Your task to perform on an android device: Open Wikipedia Image 0: 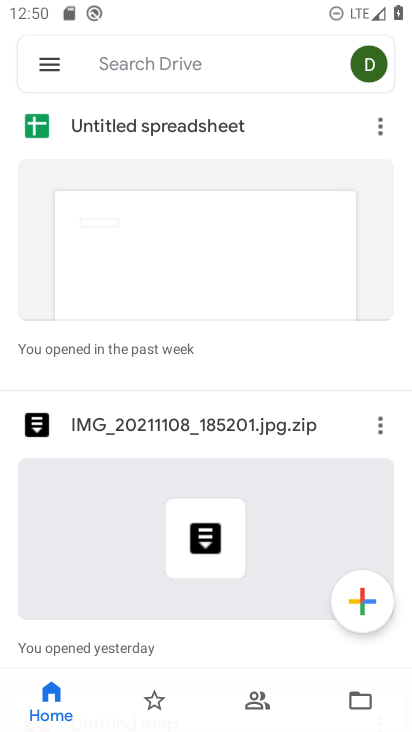
Step 0: press home button
Your task to perform on an android device: Open Wikipedia Image 1: 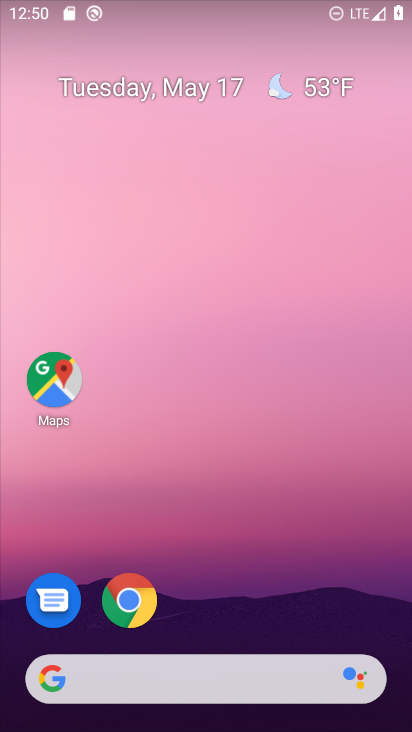
Step 1: drag from (250, 609) to (235, 255)
Your task to perform on an android device: Open Wikipedia Image 2: 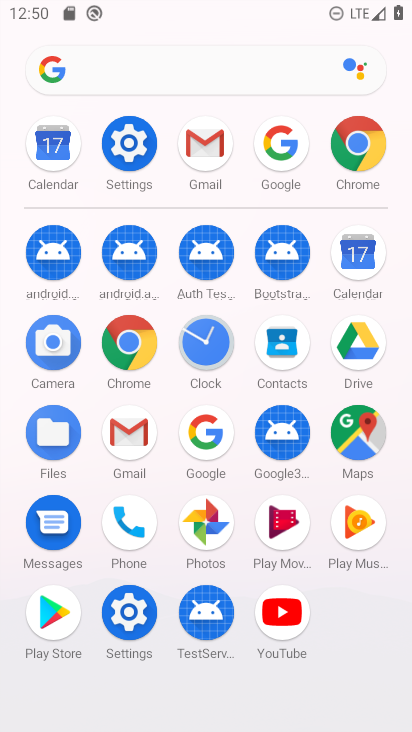
Step 2: click (365, 164)
Your task to perform on an android device: Open Wikipedia Image 3: 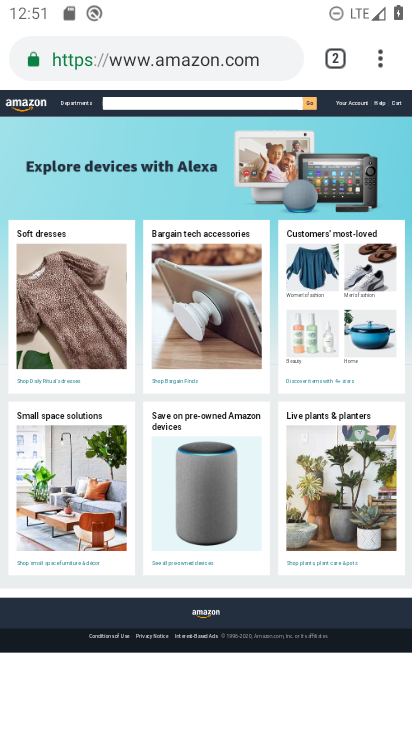
Step 3: press back button
Your task to perform on an android device: Open Wikipedia Image 4: 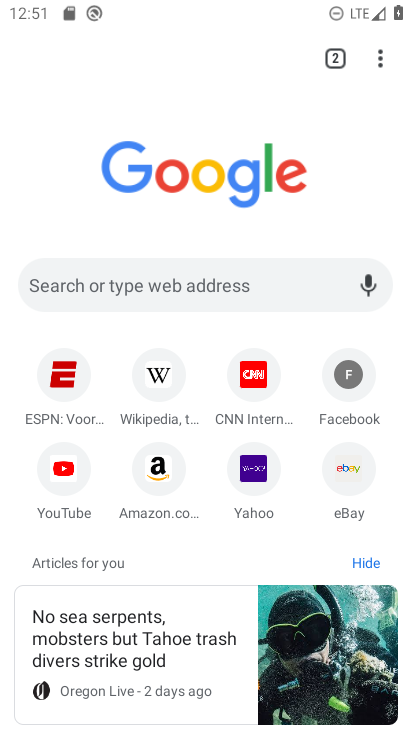
Step 4: click (168, 409)
Your task to perform on an android device: Open Wikipedia Image 5: 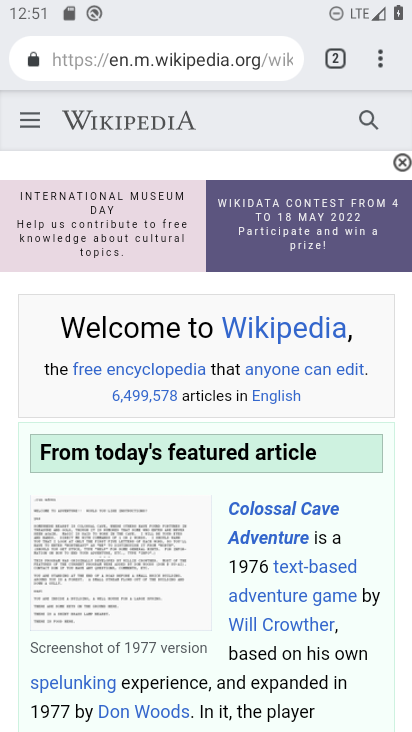
Step 5: task complete